Your task to perform on an android device: Open Chrome and go to settings Image 0: 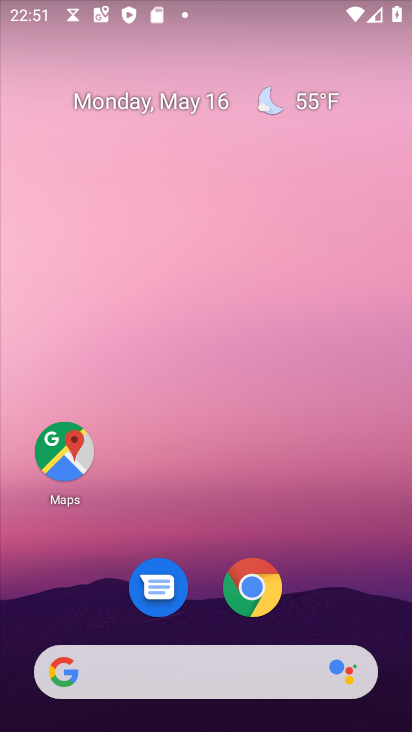
Step 0: drag from (311, 578) to (258, 11)
Your task to perform on an android device: Open Chrome and go to settings Image 1: 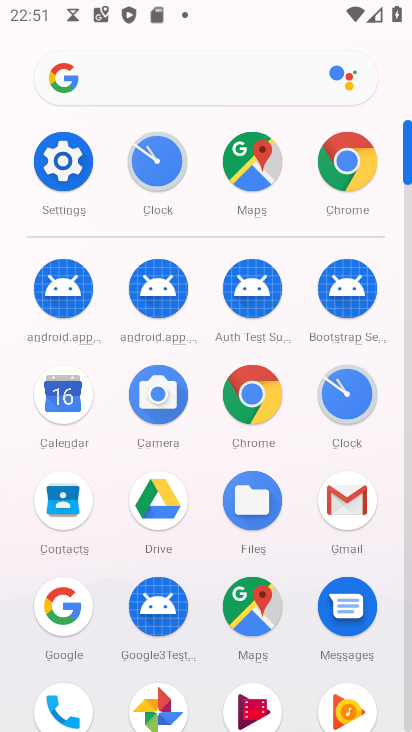
Step 1: click (249, 392)
Your task to perform on an android device: Open Chrome and go to settings Image 2: 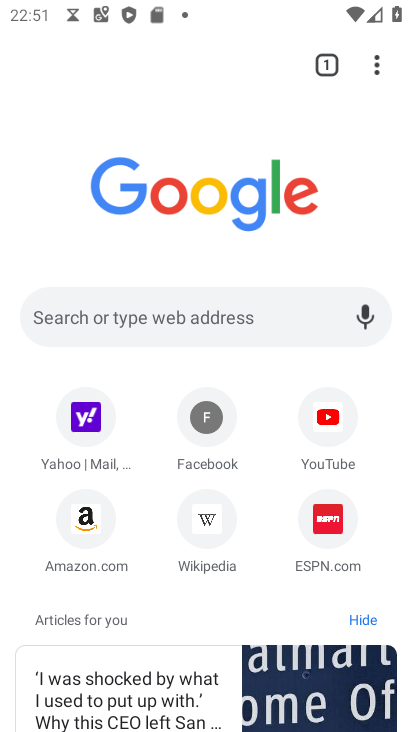
Step 2: task complete